Your task to perform on an android device: turn notification dots on Image 0: 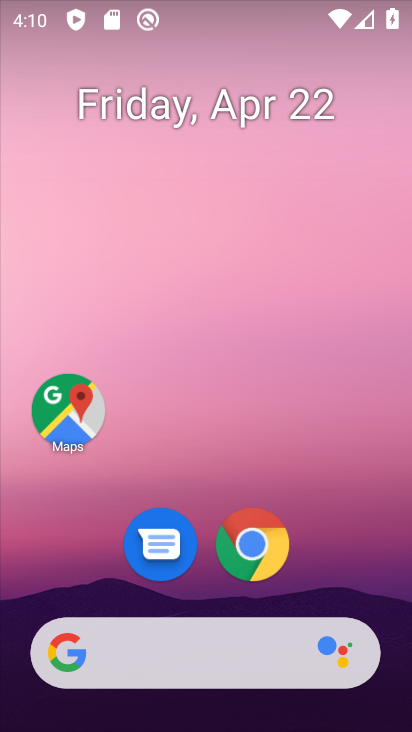
Step 0: drag from (226, 539) to (226, 110)
Your task to perform on an android device: turn notification dots on Image 1: 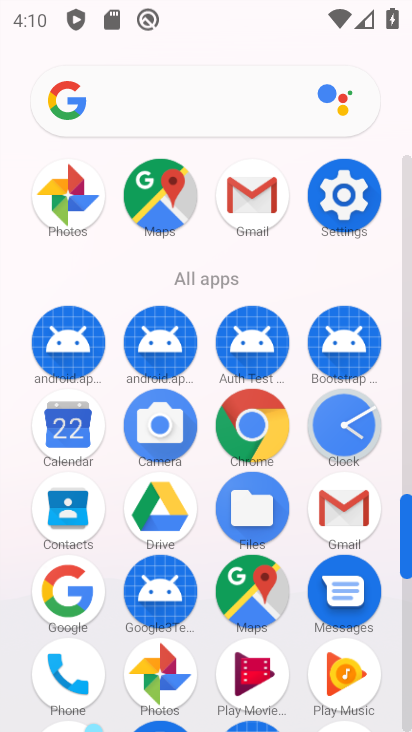
Step 1: click (340, 191)
Your task to perform on an android device: turn notification dots on Image 2: 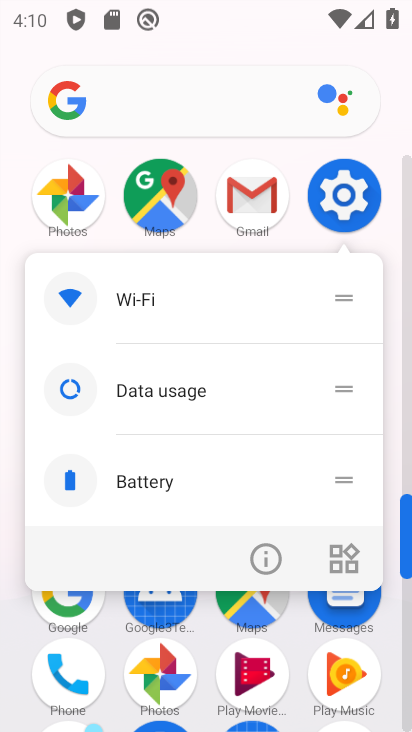
Step 2: click (340, 191)
Your task to perform on an android device: turn notification dots on Image 3: 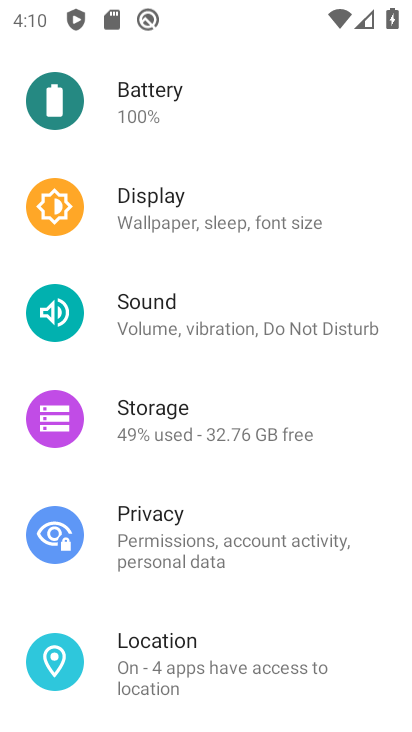
Step 3: drag from (247, 530) to (250, 581)
Your task to perform on an android device: turn notification dots on Image 4: 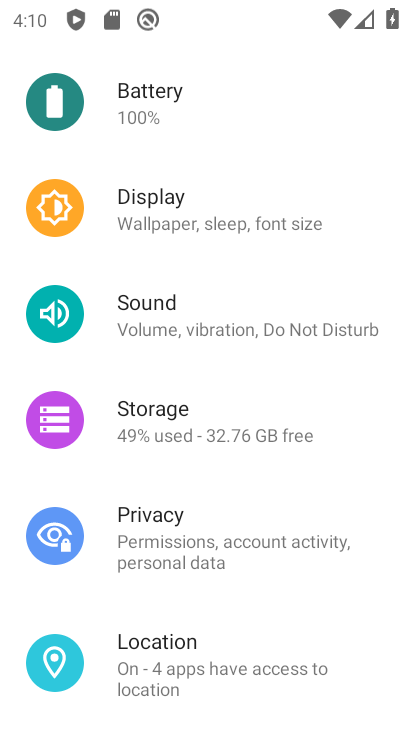
Step 4: drag from (291, 124) to (300, 569)
Your task to perform on an android device: turn notification dots on Image 5: 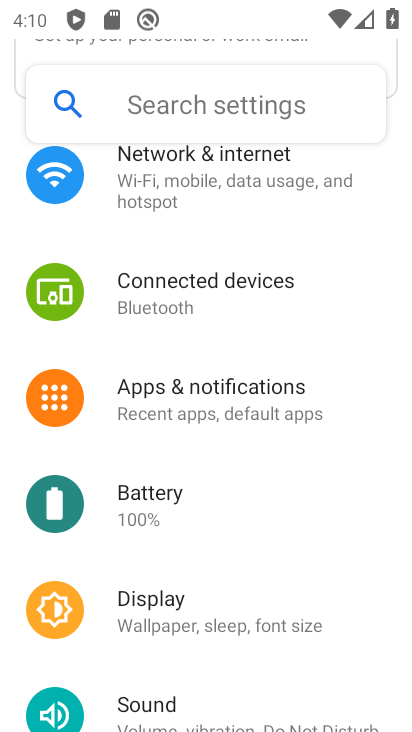
Step 5: click (229, 404)
Your task to perform on an android device: turn notification dots on Image 6: 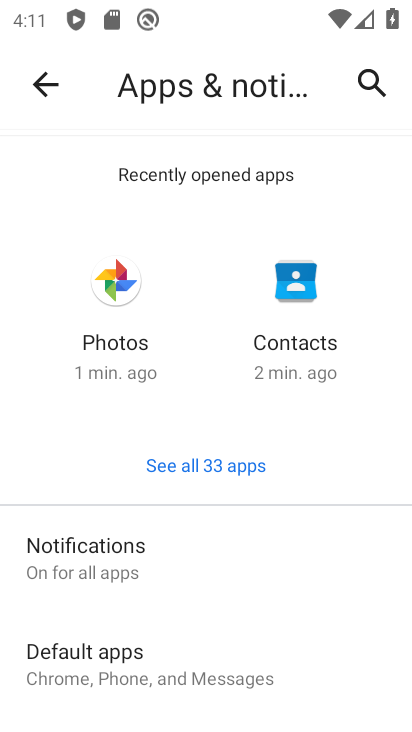
Step 6: click (133, 561)
Your task to perform on an android device: turn notification dots on Image 7: 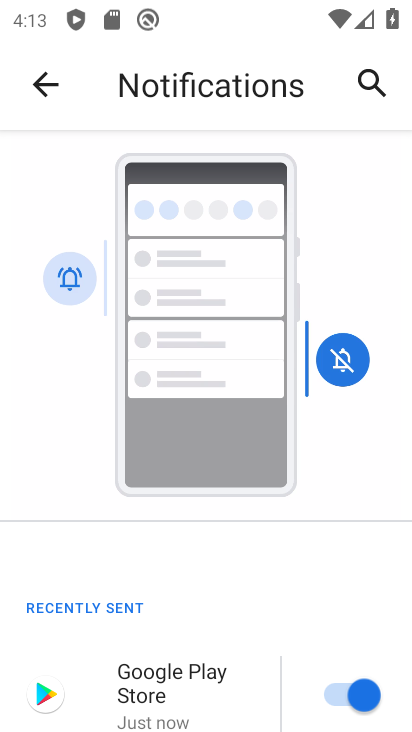
Step 7: drag from (246, 700) to (294, 148)
Your task to perform on an android device: turn notification dots on Image 8: 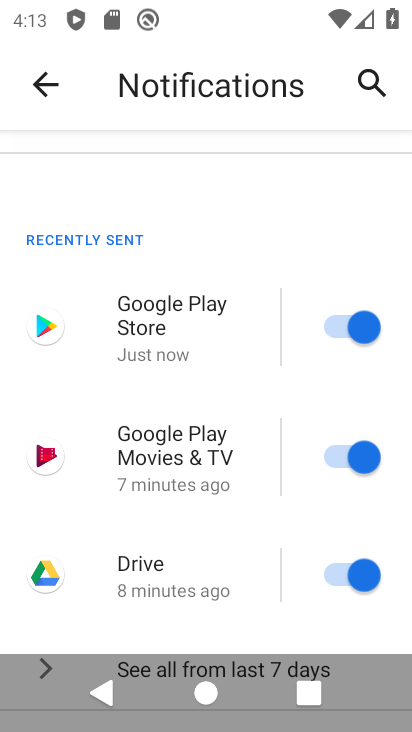
Step 8: drag from (262, 615) to (240, 226)
Your task to perform on an android device: turn notification dots on Image 9: 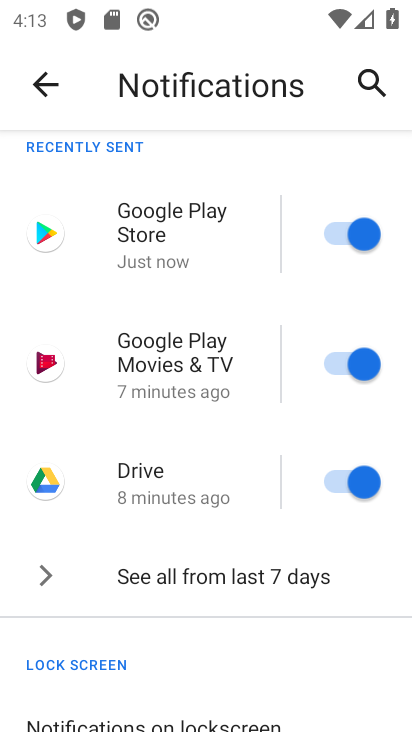
Step 9: drag from (204, 685) to (217, 228)
Your task to perform on an android device: turn notification dots on Image 10: 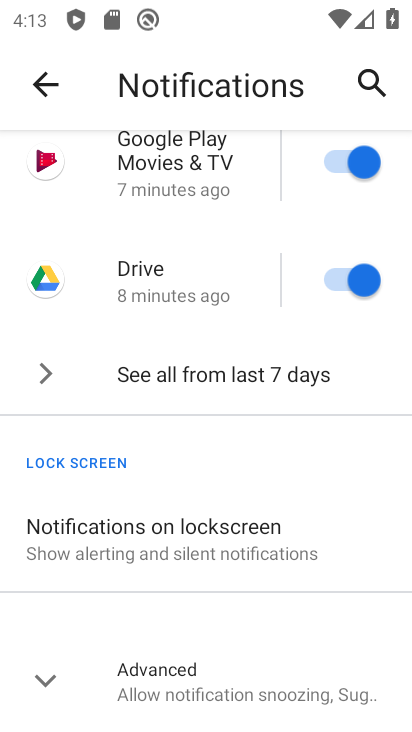
Step 10: click (214, 674)
Your task to perform on an android device: turn notification dots on Image 11: 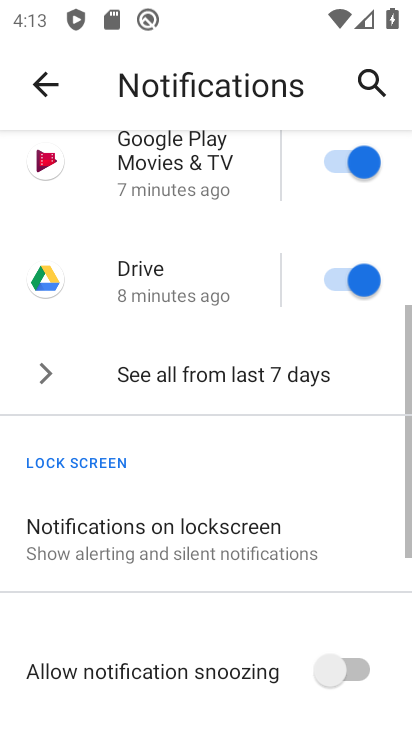
Step 11: task complete